Your task to perform on an android device: turn off javascript in the chrome app Image 0: 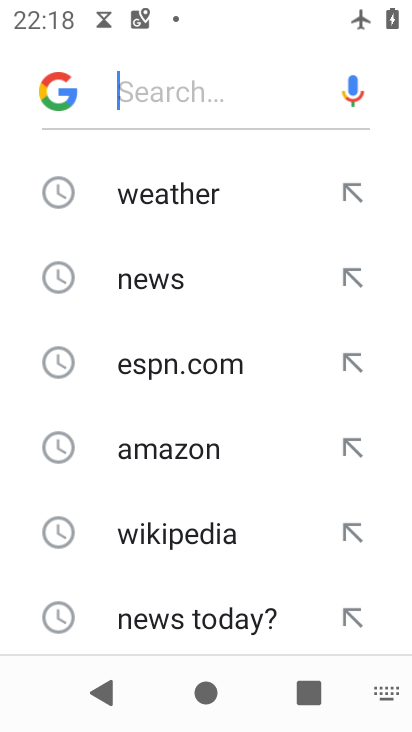
Step 0: drag from (189, 559) to (202, 236)
Your task to perform on an android device: turn off javascript in the chrome app Image 1: 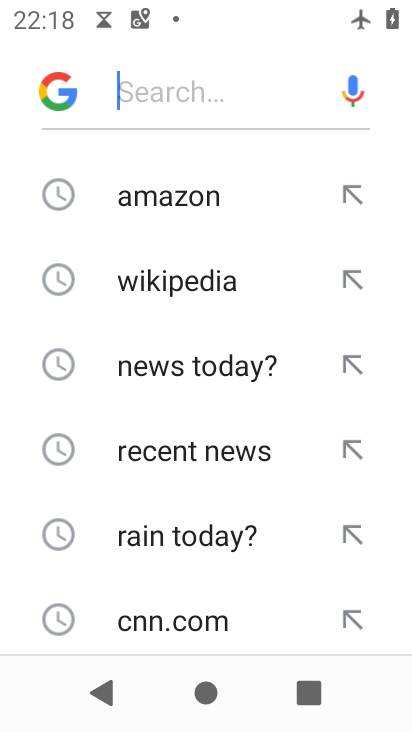
Step 1: press home button
Your task to perform on an android device: turn off javascript in the chrome app Image 2: 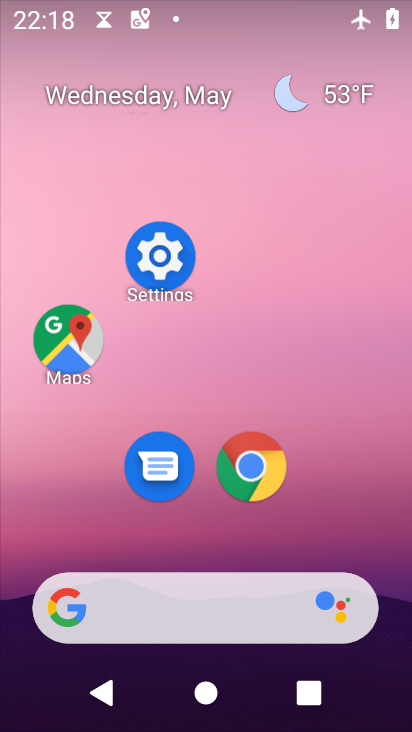
Step 2: drag from (206, 545) to (217, 209)
Your task to perform on an android device: turn off javascript in the chrome app Image 3: 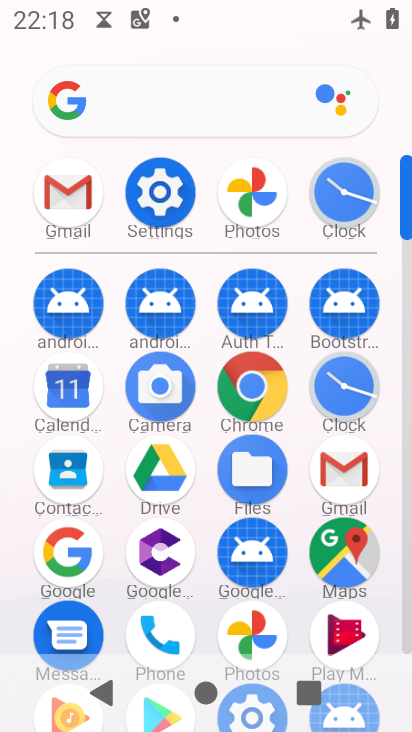
Step 3: click (247, 381)
Your task to perform on an android device: turn off javascript in the chrome app Image 4: 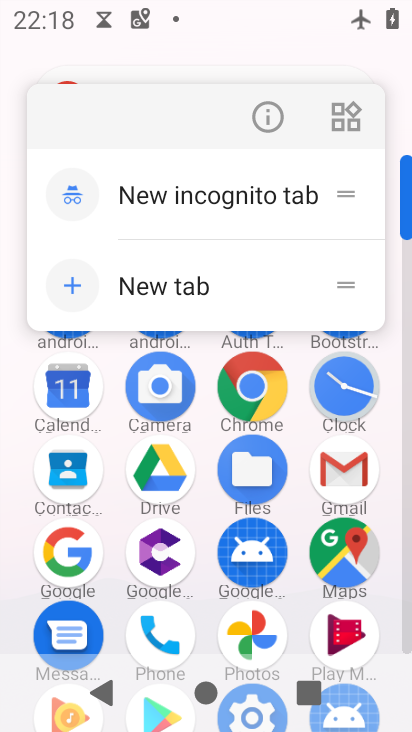
Step 4: click (268, 113)
Your task to perform on an android device: turn off javascript in the chrome app Image 5: 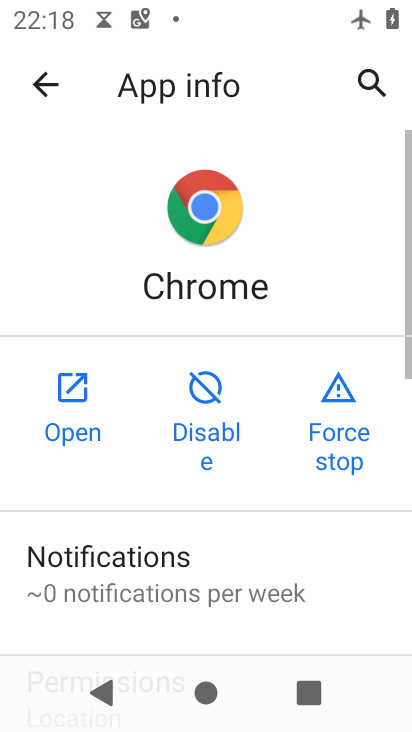
Step 5: click (61, 399)
Your task to perform on an android device: turn off javascript in the chrome app Image 6: 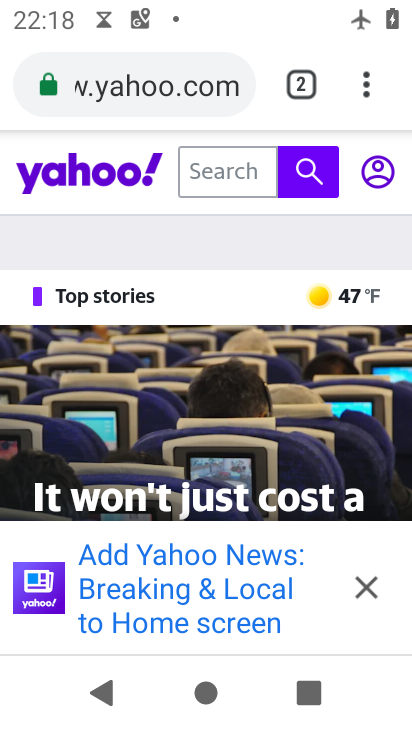
Step 6: click (366, 86)
Your task to perform on an android device: turn off javascript in the chrome app Image 7: 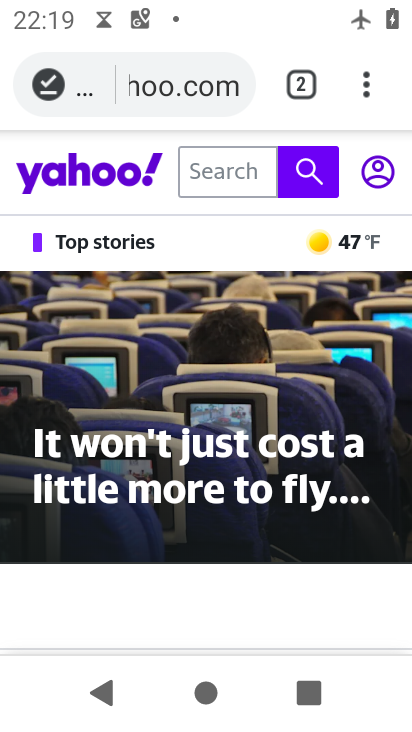
Step 7: drag from (367, 106) to (173, 528)
Your task to perform on an android device: turn off javascript in the chrome app Image 8: 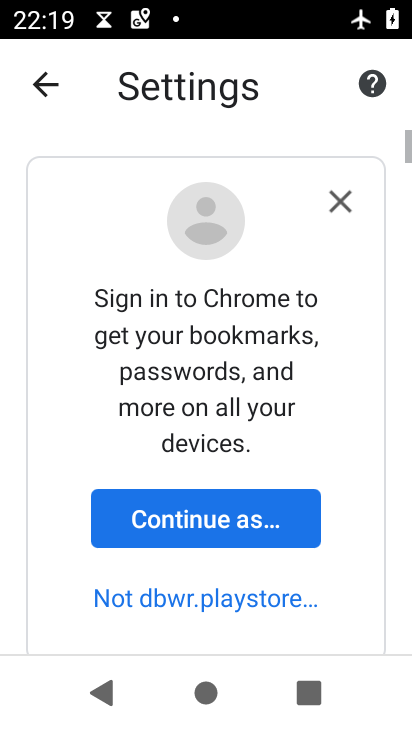
Step 8: drag from (220, 607) to (218, 150)
Your task to perform on an android device: turn off javascript in the chrome app Image 9: 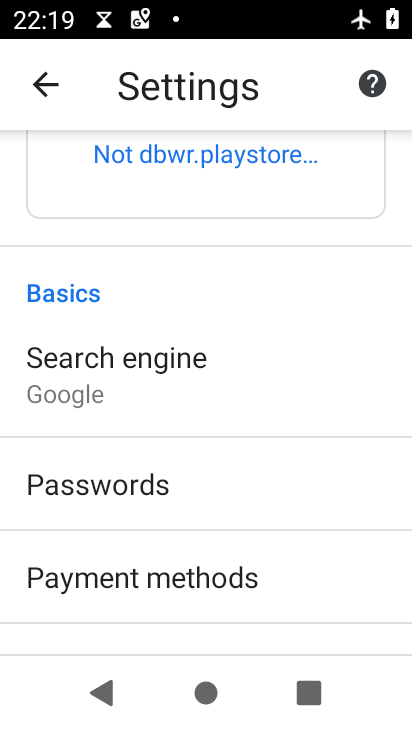
Step 9: drag from (213, 547) to (236, 75)
Your task to perform on an android device: turn off javascript in the chrome app Image 10: 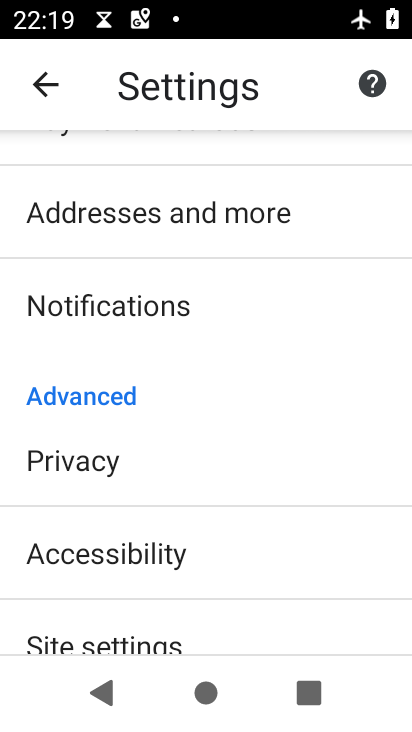
Step 10: drag from (172, 621) to (205, 271)
Your task to perform on an android device: turn off javascript in the chrome app Image 11: 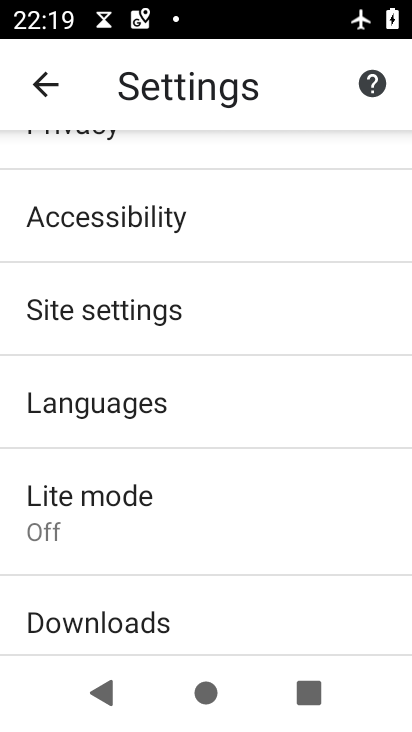
Step 11: click (188, 327)
Your task to perform on an android device: turn off javascript in the chrome app Image 12: 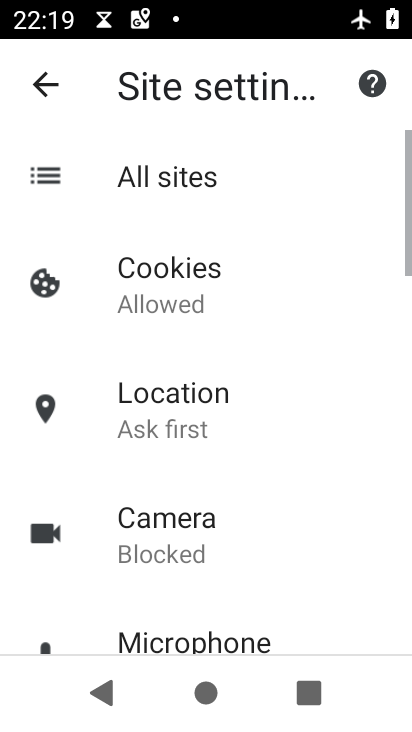
Step 12: drag from (245, 539) to (246, 220)
Your task to perform on an android device: turn off javascript in the chrome app Image 13: 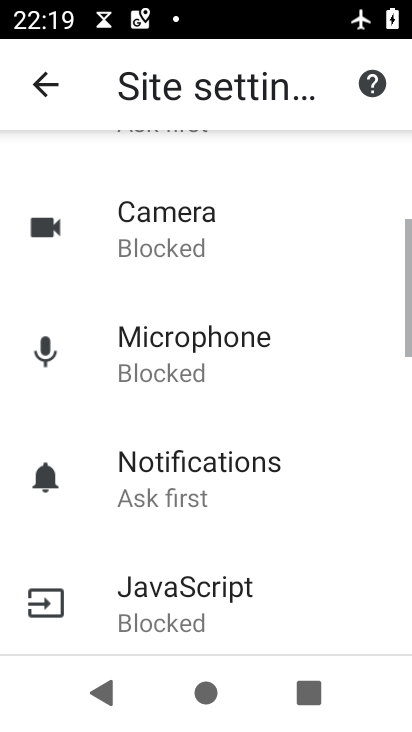
Step 13: click (231, 590)
Your task to perform on an android device: turn off javascript in the chrome app Image 14: 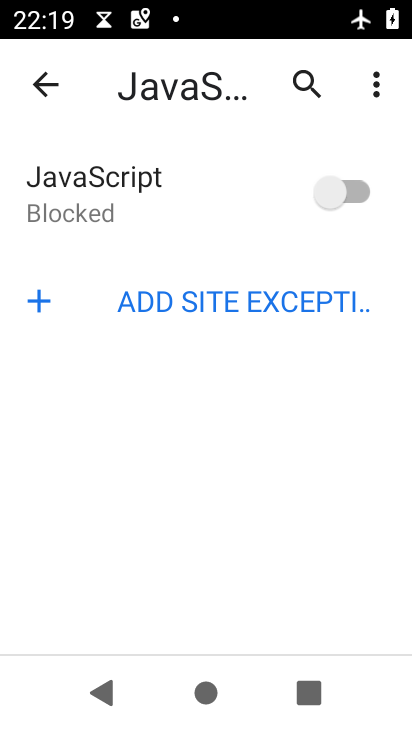
Step 14: task complete